Your task to perform on an android device: Open Reddit.com Image 0: 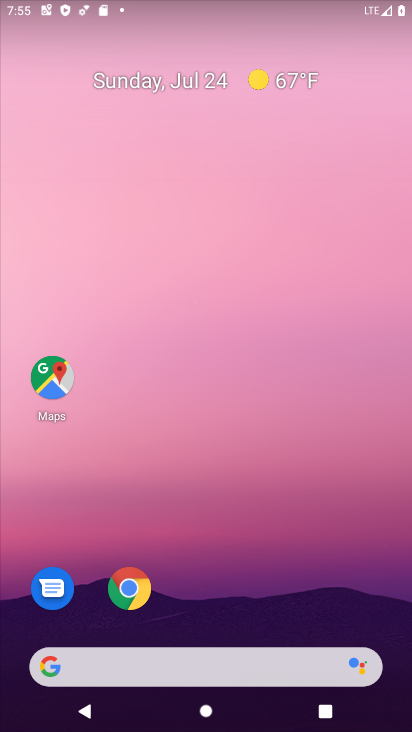
Step 0: click (135, 595)
Your task to perform on an android device: Open Reddit.com Image 1: 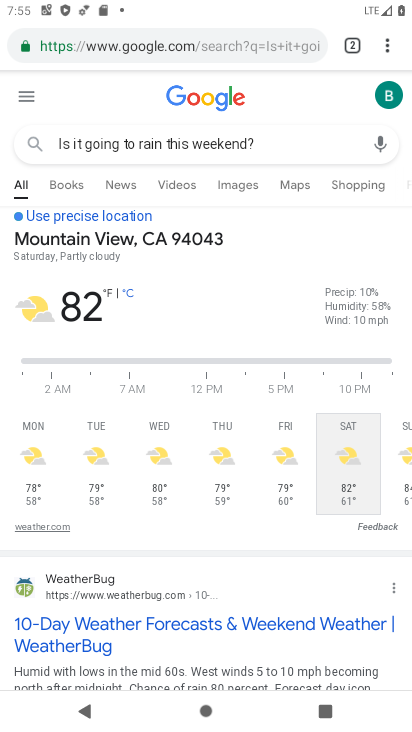
Step 1: click (389, 49)
Your task to perform on an android device: Open Reddit.com Image 2: 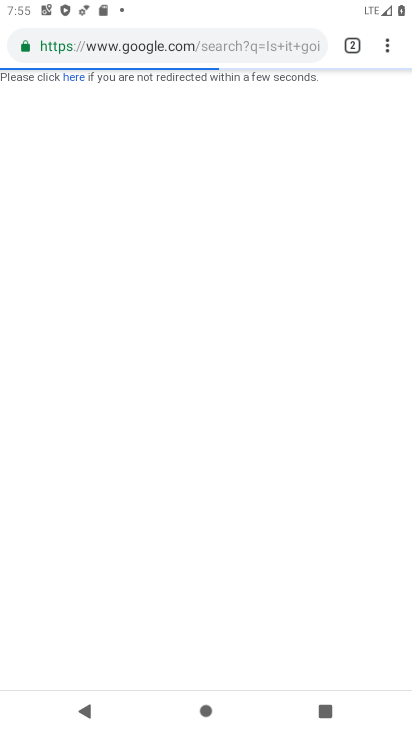
Step 2: click (397, 40)
Your task to perform on an android device: Open Reddit.com Image 3: 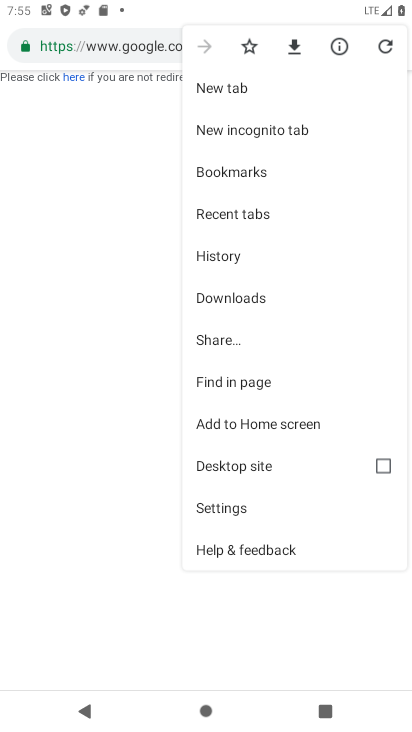
Step 3: click (248, 87)
Your task to perform on an android device: Open Reddit.com Image 4: 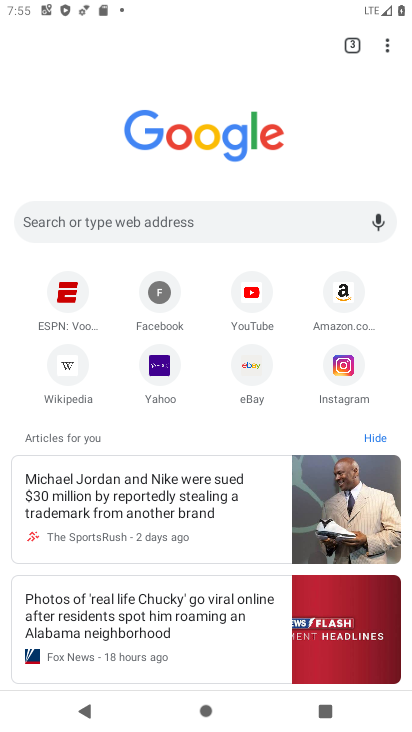
Step 4: click (209, 222)
Your task to perform on an android device: Open Reddit.com Image 5: 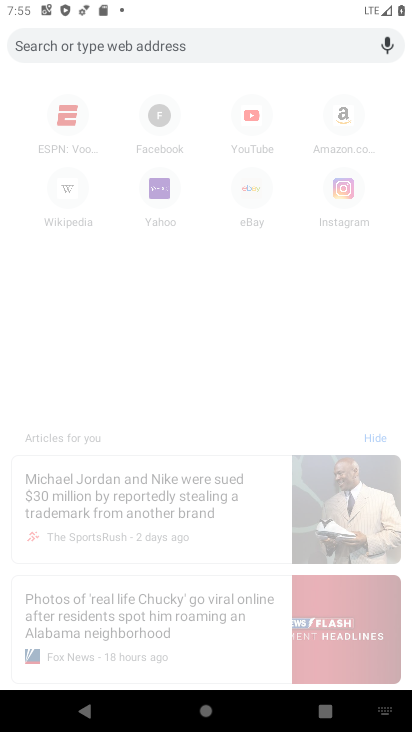
Step 5: type " Reddit.com "
Your task to perform on an android device: Open Reddit.com Image 6: 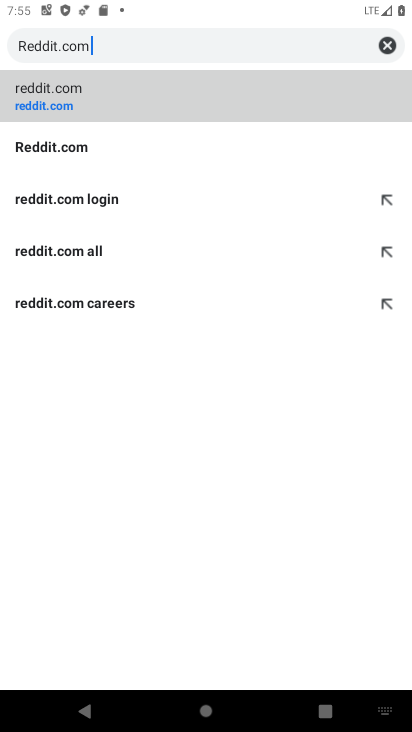
Step 6: click (85, 87)
Your task to perform on an android device: Open Reddit.com Image 7: 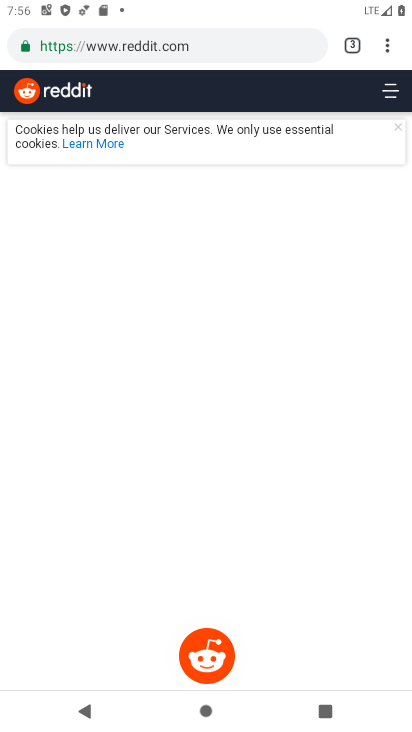
Step 7: task complete